Your task to perform on an android device: What is the news today? Image 0: 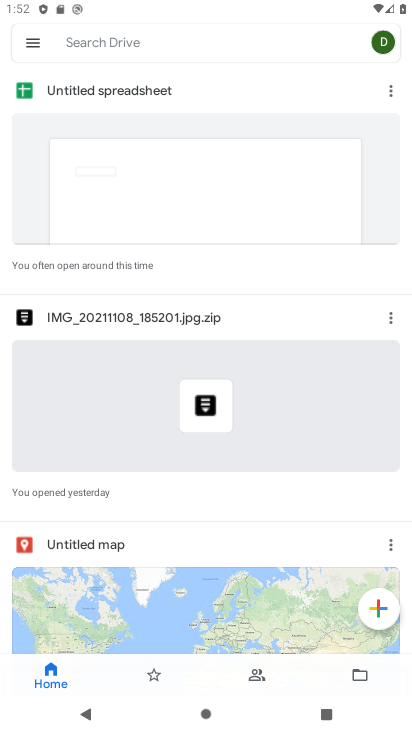
Step 0: press back button
Your task to perform on an android device: What is the news today? Image 1: 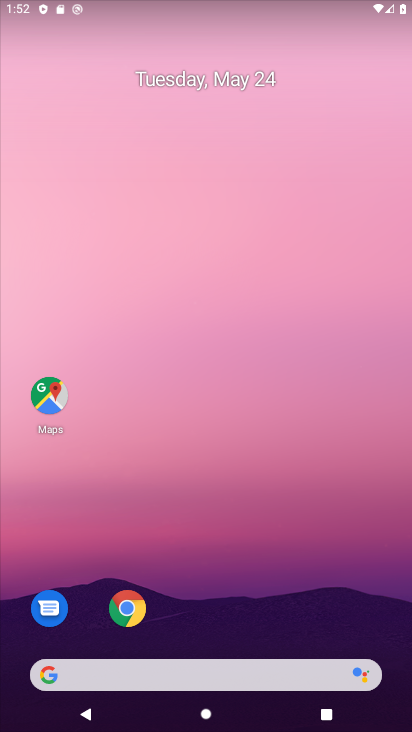
Step 1: drag from (168, 564) to (177, 76)
Your task to perform on an android device: What is the news today? Image 2: 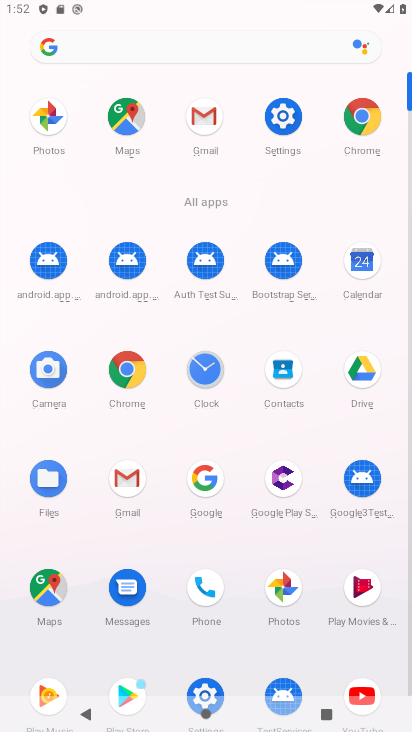
Step 2: drag from (11, 534) to (10, 242)
Your task to perform on an android device: What is the news today? Image 3: 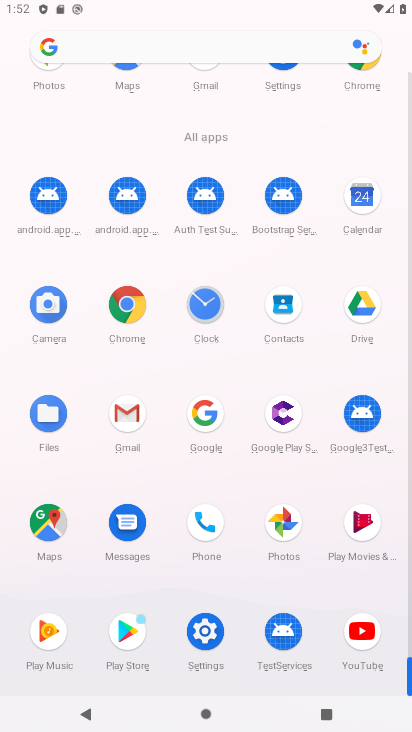
Step 3: click (127, 299)
Your task to perform on an android device: What is the news today? Image 4: 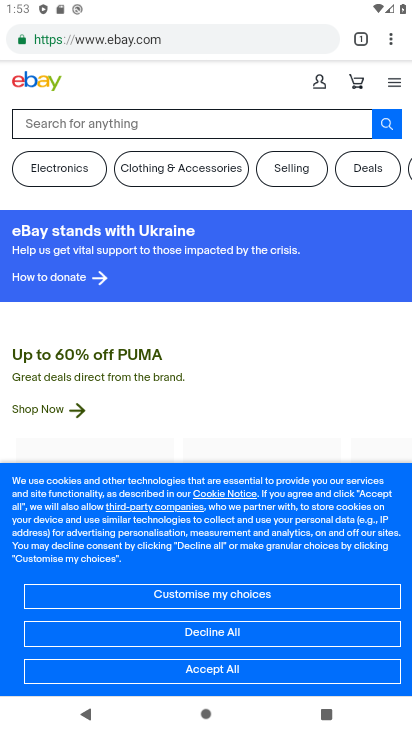
Step 4: click (162, 35)
Your task to perform on an android device: What is the news today? Image 5: 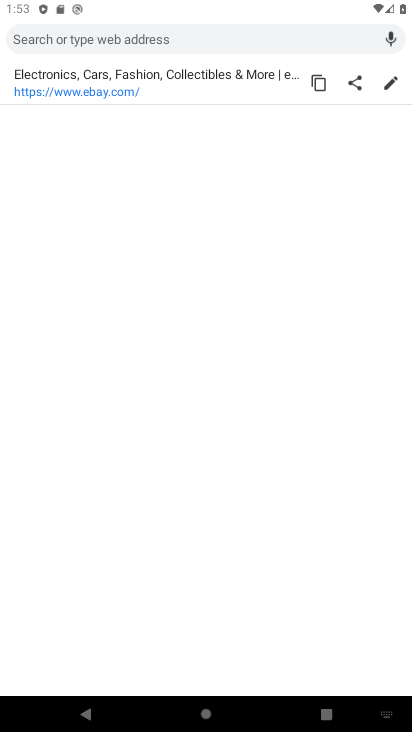
Step 5: type "What is the news today?"
Your task to perform on an android device: What is the news today? Image 6: 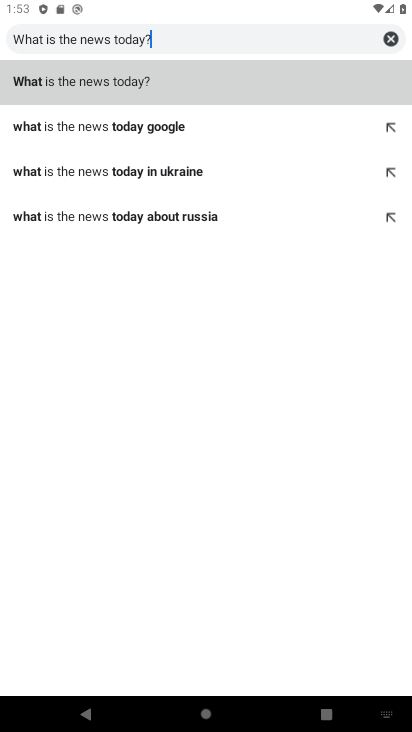
Step 6: type ""
Your task to perform on an android device: What is the news today? Image 7: 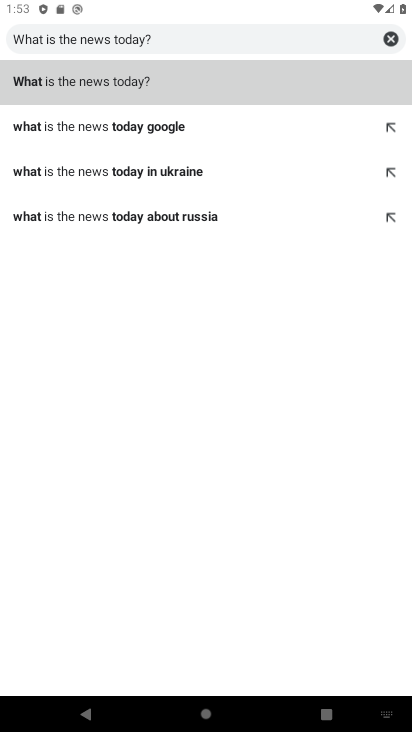
Step 7: click (136, 85)
Your task to perform on an android device: What is the news today? Image 8: 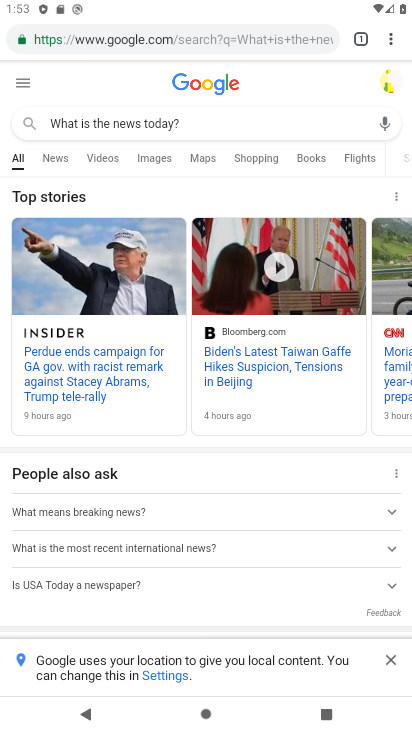
Step 8: click (53, 157)
Your task to perform on an android device: What is the news today? Image 9: 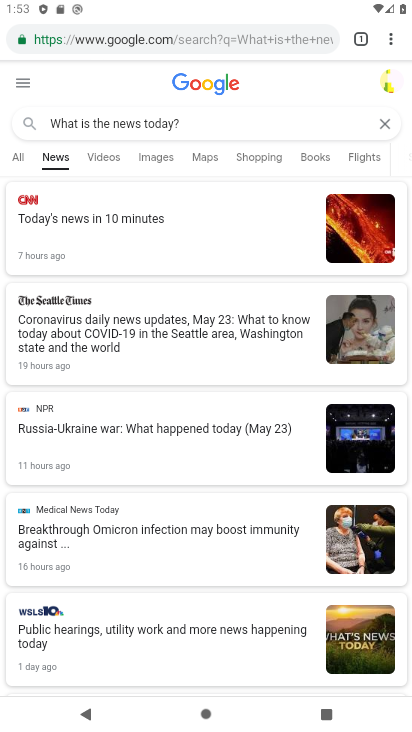
Step 9: task complete